Your task to perform on an android device: turn on location history Image 0: 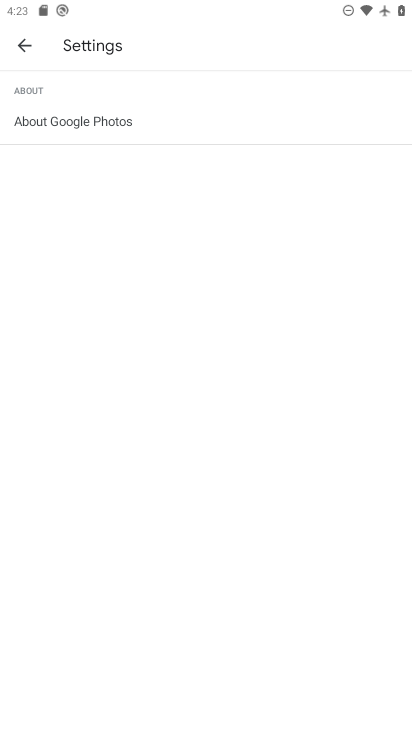
Step 0: press home button
Your task to perform on an android device: turn on location history Image 1: 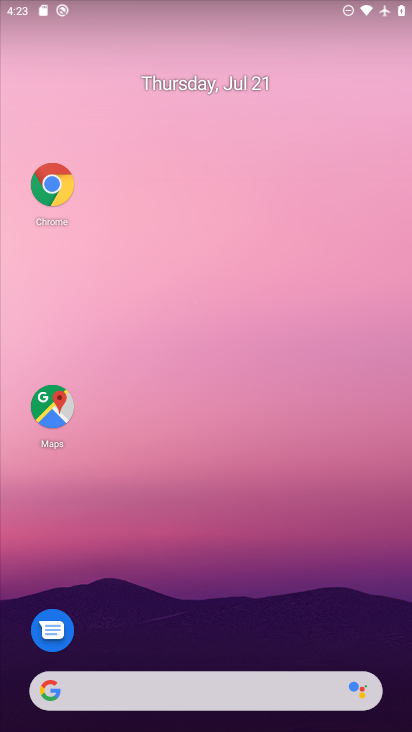
Step 1: drag from (231, 671) to (308, 1)
Your task to perform on an android device: turn on location history Image 2: 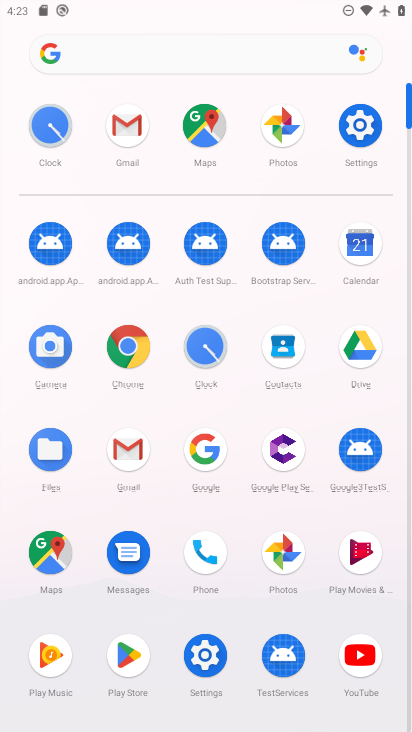
Step 2: click (362, 128)
Your task to perform on an android device: turn on location history Image 3: 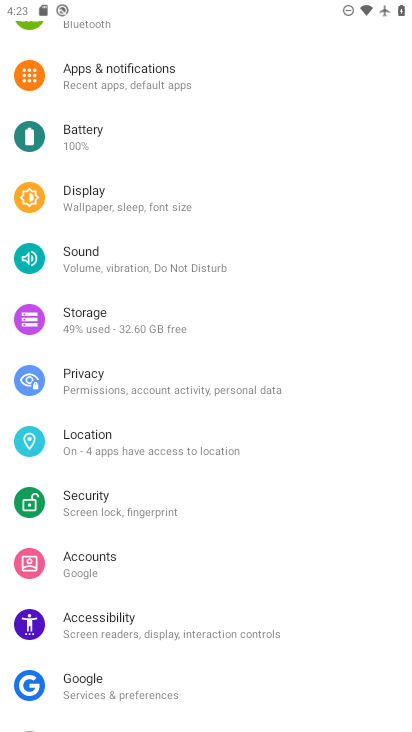
Step 3: click (100, 450)
Your task to perform on an android device: turn on location history Image 4: 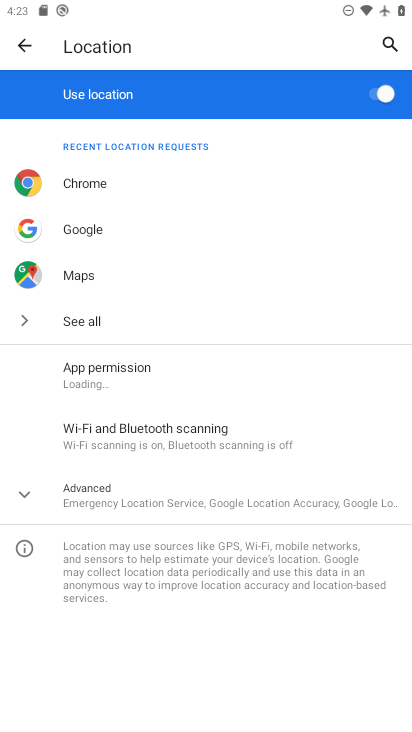
Step 4: click (127, 496)
Your task to perform on an android device: turn on location history Image 5: 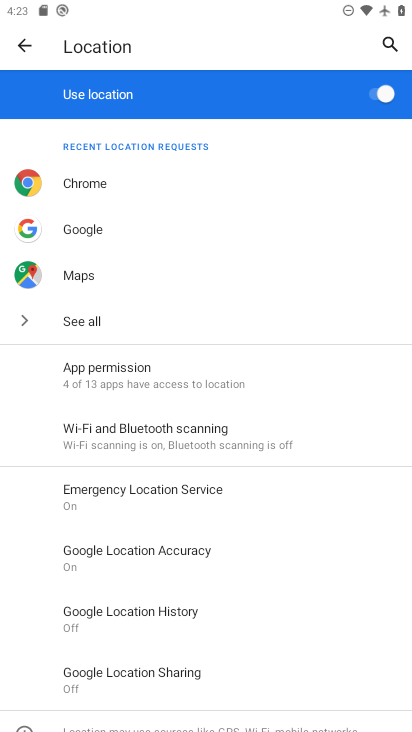
Step 5: click (181, 605)
Your task to perform on an android device: turn on location history Image 6: 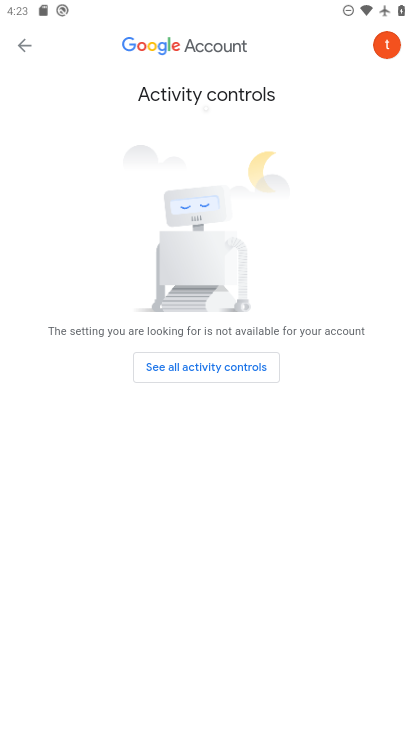
Step 6: click (199, 368)
Your task to perform on an android device: turn on location history Image 7: 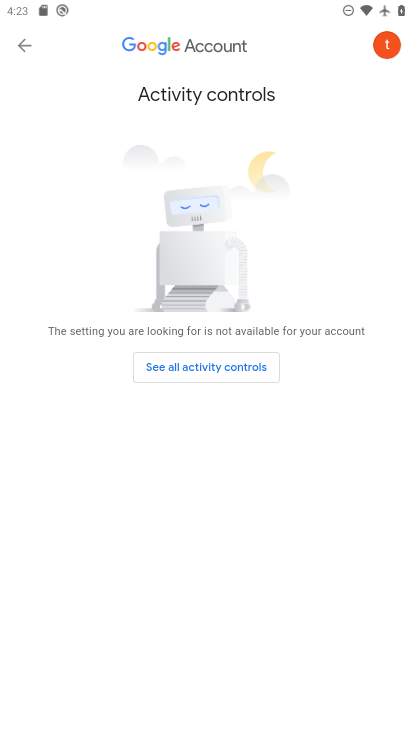
Step 7: click (196, 372)
Your task to perform on an android device: turn on location history Image 8: 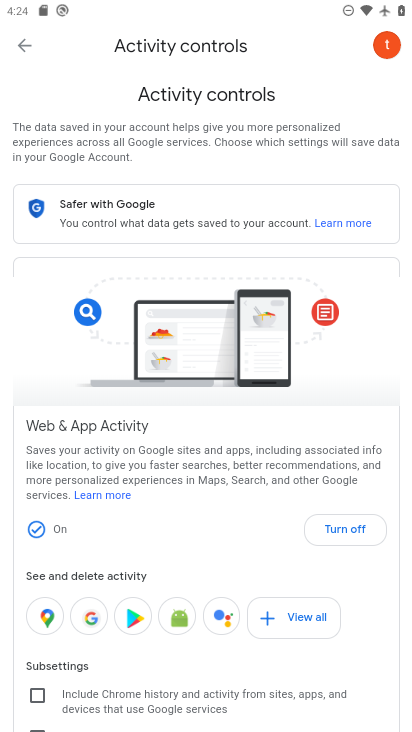
Step 8: task complete